Your task to perform on an android device: check data usage Image 0: 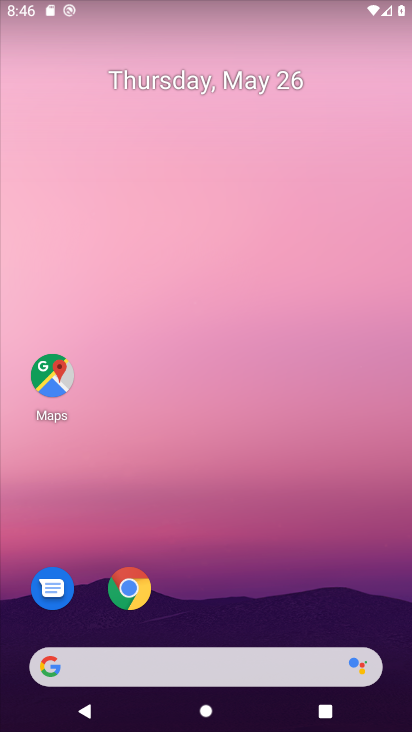
Step 0: drag from (276, 612) to (325, 37)
Your task to perform on an android device: check data usage Image 1: 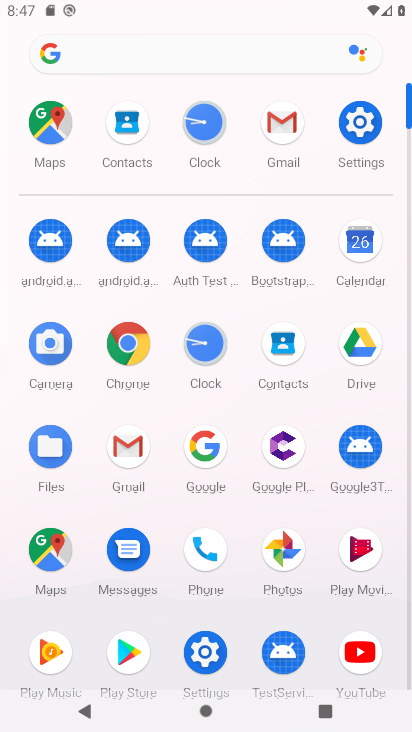
Step 1: click (363, 115)
Your task to perform on an android device: check data usage Image 2: 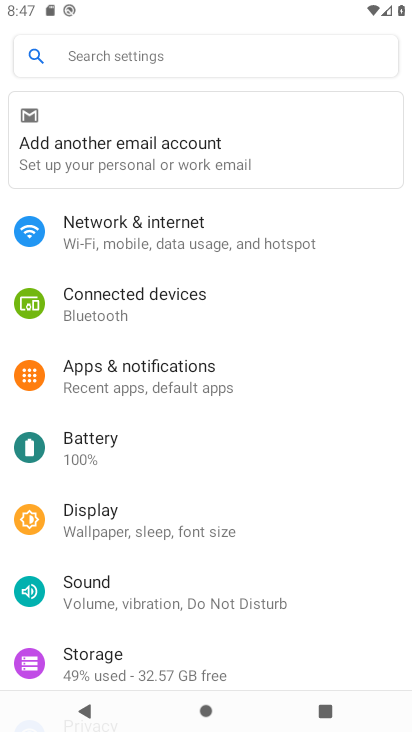
Step 2: click (123, 231)
Your task to perform on an android device: check data usage Image 3: 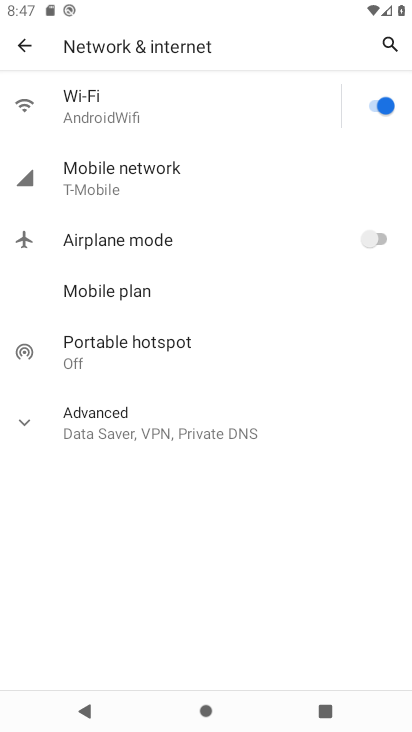
Step 3: click (99, 190)
Your task to perform on an android device: check data usage Image 4: 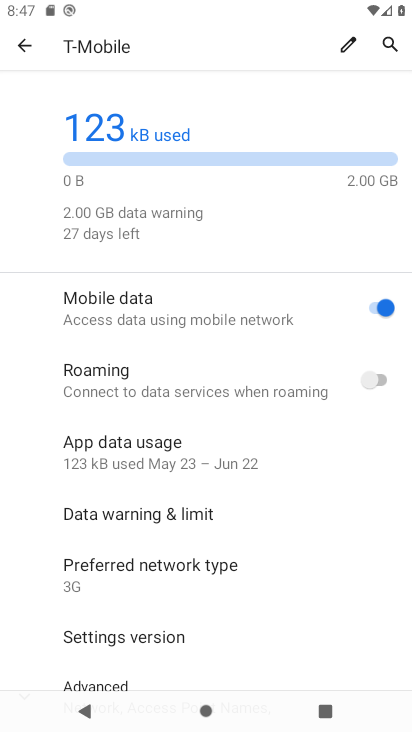
Step 4: click (129, 457)
Your task to perform on an android device: check data usage Image 5: 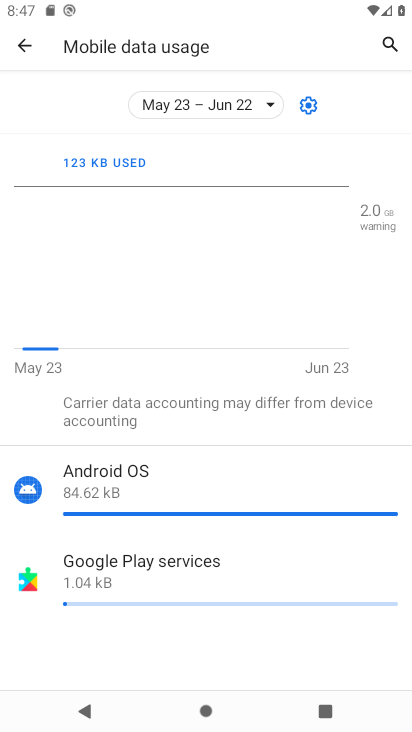
Step 5: task complete